Your task to perform on an android device: Open calendar and show me the first week of next month Image 0: 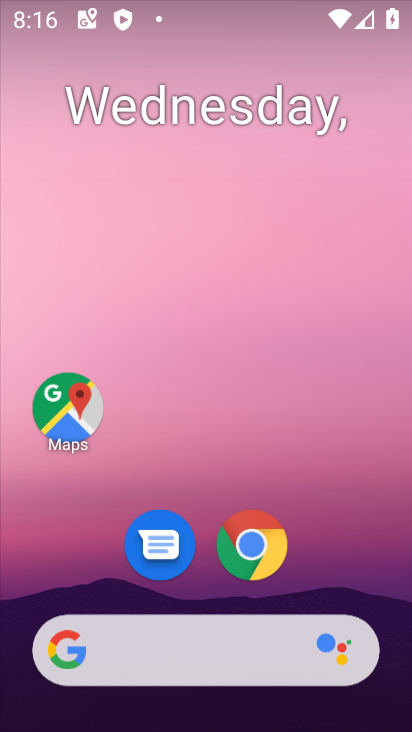
Step 0: drag from (215, 527) to (237, 77)
Your task to perform on an android device: Open calendar and show me the first week of next month Image 1: 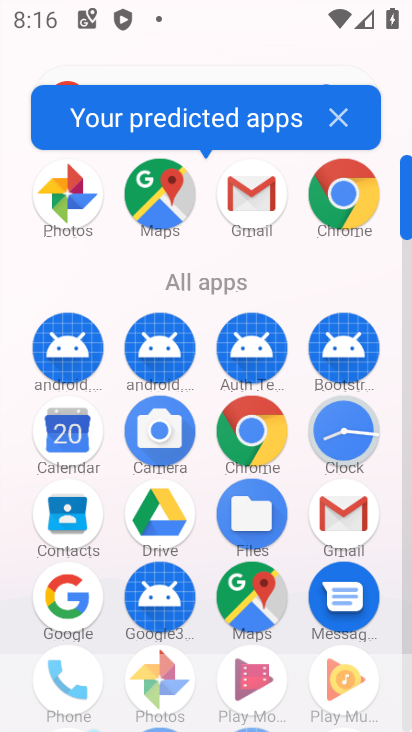
Step 1: click (48, 444)
Your task to perform on an android device: Open calendar and show me the first week of next month Image 2: 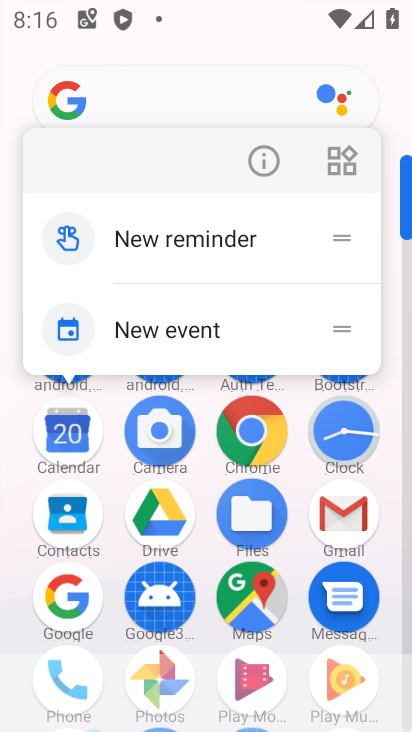
Step 2: click (69, 437)
Your task to perform on an android device: Open calendar and show me the first week of next month Image 3: 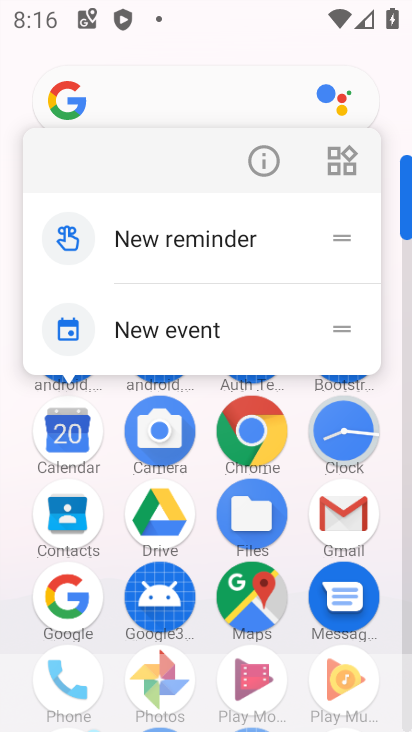
Step 3: click (72, 424)
Your task to perform on an android device: Open calendar and show me the first week of next month Image 4: 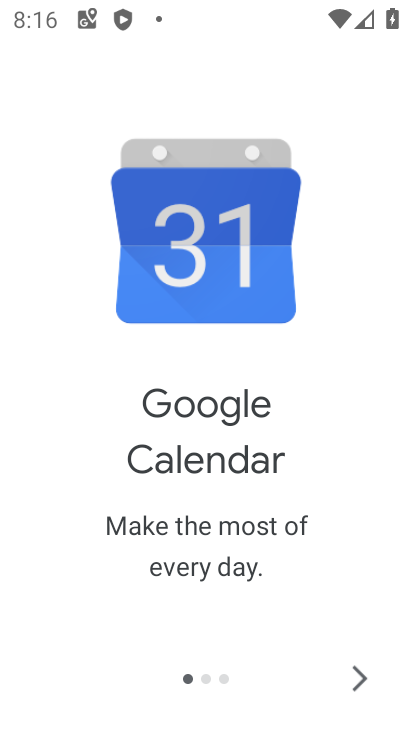
Step 4: click (353, 683)
Your task to perform on an android device: Open calendar and show me the first week of next month Image 5: 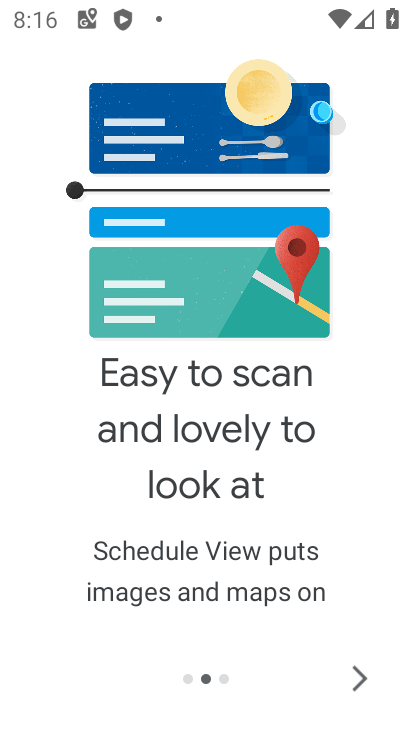
Step 5: click (353, 679)
Your task to perform on an android device: Open calendar and show me the first week of next month Image 6: 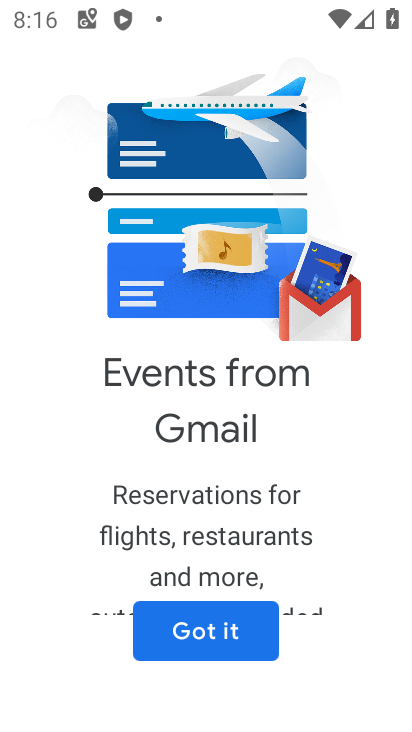
Step 6: click (186, 631)
Your task to perform on an android device: Open calendar and show me the first week of next month Image 7: 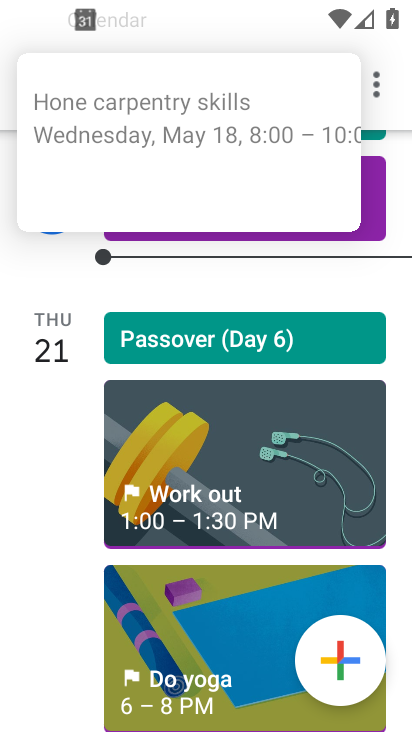
Step 7: click (78, 194)
Your task to perform on an android device: Open calendar and show me the first week of next month Image 8: 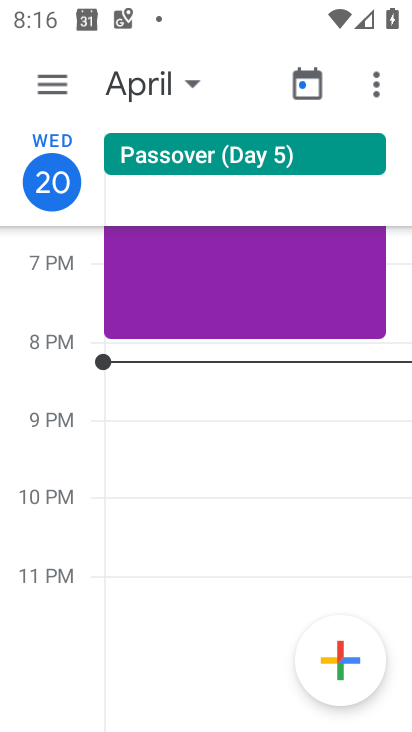
Step 8: click (191, 74)
Your task to perform on an android device: Open calendar and show me the first week of next month Image 9: 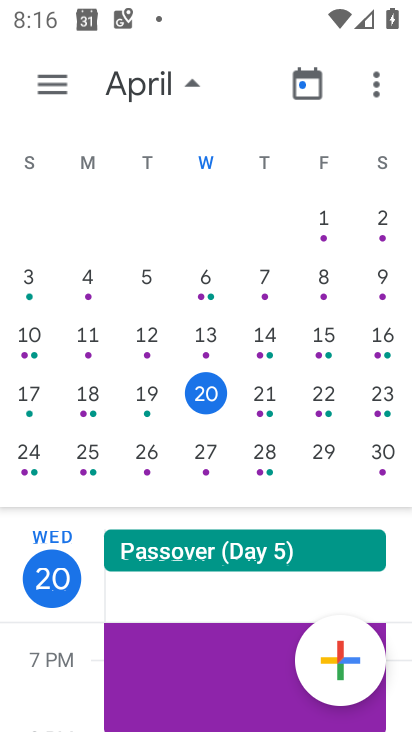
Step 9: drag from (384, 309) to (7, 364)
Your task to perform on an android device: Open calendar and show me the first week of next month Image 10: 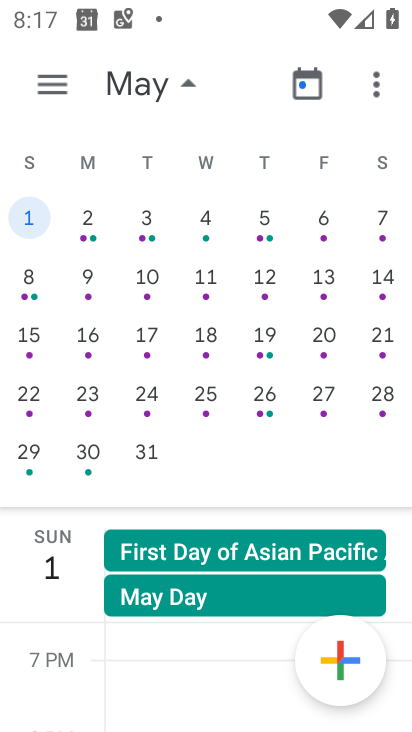
Step 10: click (87, 219)
Your task to perform on an android device: Open calendar and show me the first week of next month Image 11: 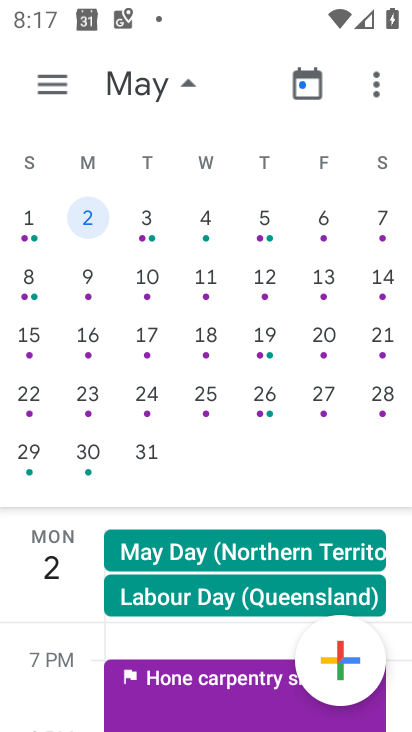
Step 11: task complete